Your task to perform on an android device: Search for seafood restaurants on Google Maps Image 0: 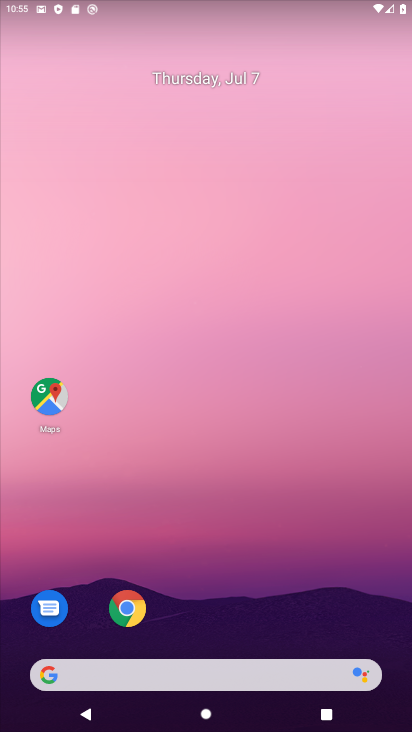
Step 0: drag from (286, 638) to (320, 47)
Your task to perform on an android device: Search for seafood restaurants on Google Maps Image 1: 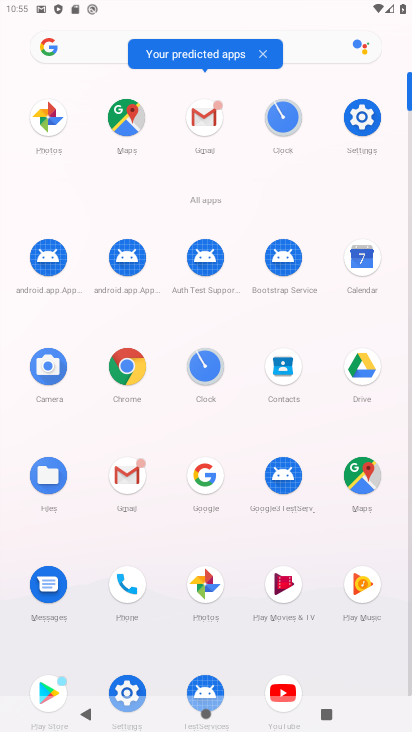
Step 1: click (359, 478)
Your task to perform on an android device: Search for seafood restaurants on Google Maps Image 2: 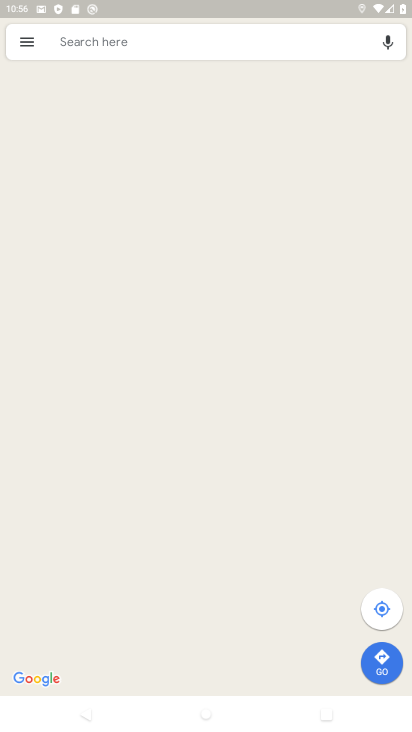
Step 2: click (112, 51)
Your task to perform on an android device: Search for seafood restaurants on Google Maps Image 3: 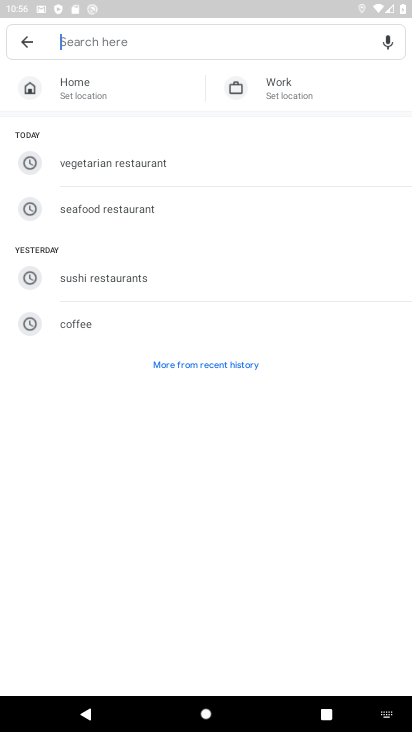
Step 3: type "seafood "
Your task to perform on an android device: Search for seafood restaurants on Google Maps Image 4: 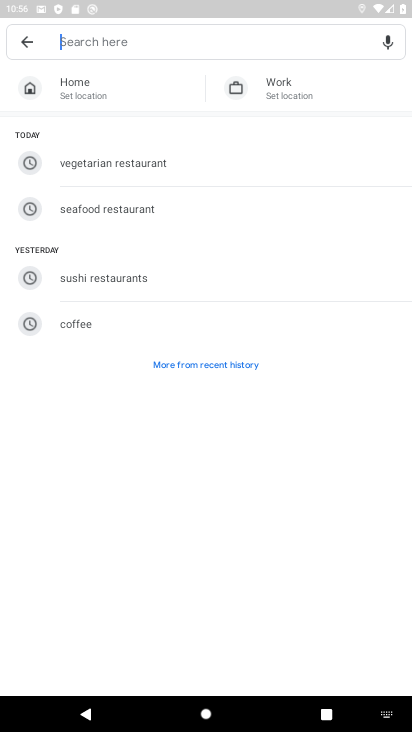
Step 4: click (141, 210)
Your task to perform on an android device: Search for seafood restaurants on Google Maps Image 5: 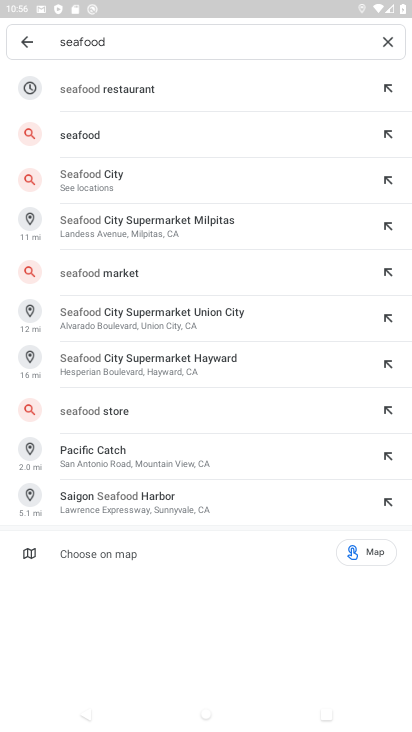
Step 5: click (147, 87)
Your task to perform on an android device: Search for seafood restaurants on Google Maps Image 6: 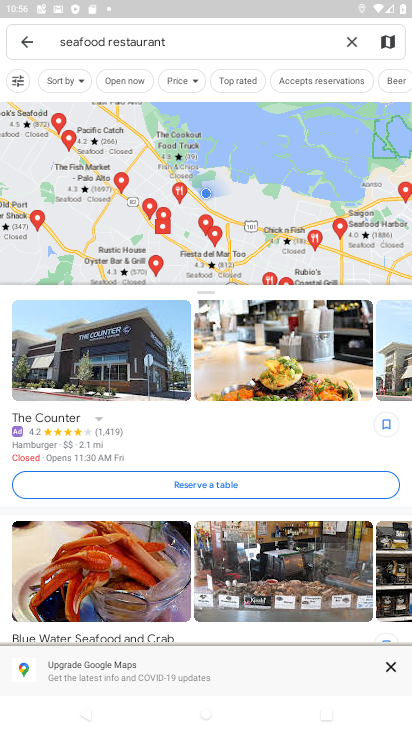
Step 6: task complete